Your task to perform on an android device: Open Yahoo.com Image 0: 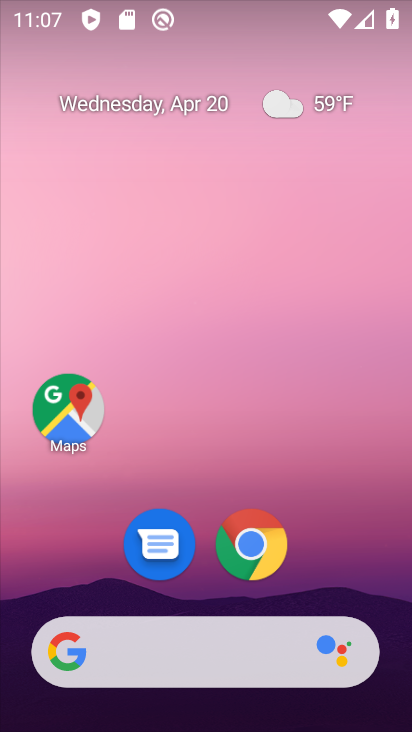
Step 0: click (305, 180)
Your task to perform on an android device: Open Yahoo.com Image 1: 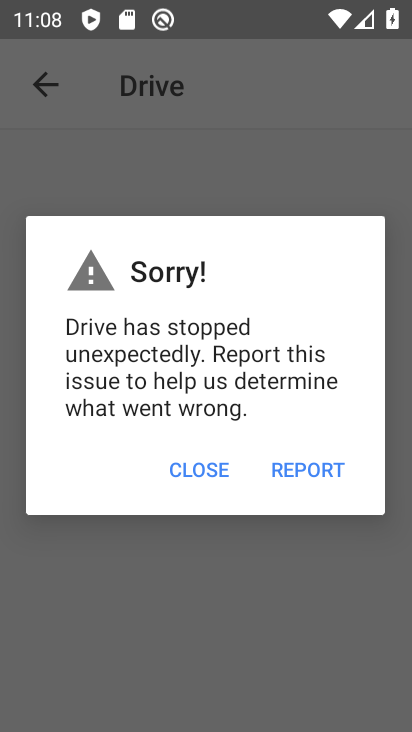
Step 1: click (181, 477)
Your task to perform on an android device: Open Yahoo.com Image 2: 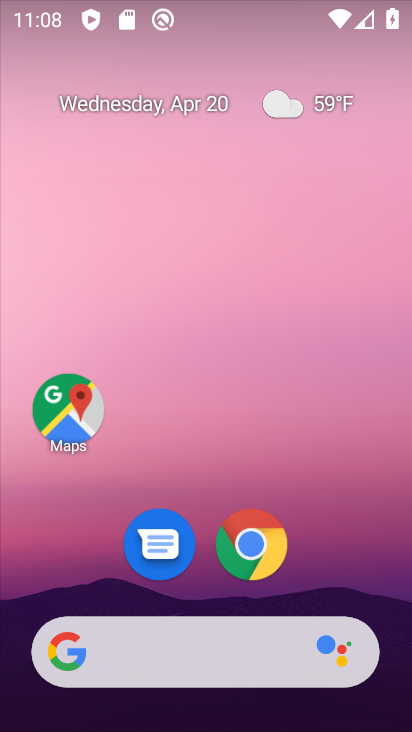
Step 2: drag from (192, 583) to (256, 110)
Your task to perform on an android device: Open Yahoo.com Image 3: 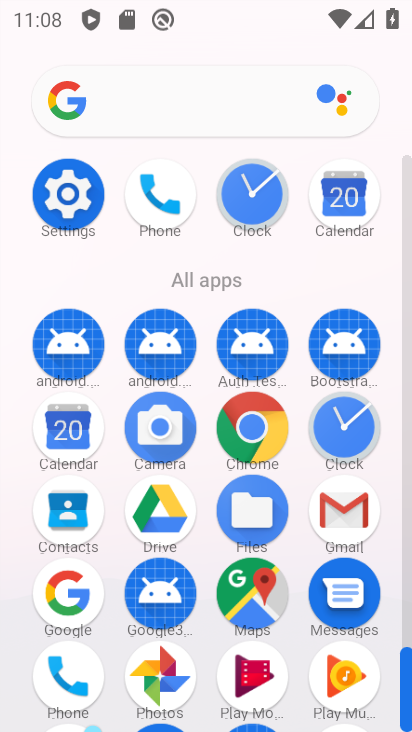
Step 3: click (242, 426)
Your task to perform on an android device: Open Yahoo.com Image 4: 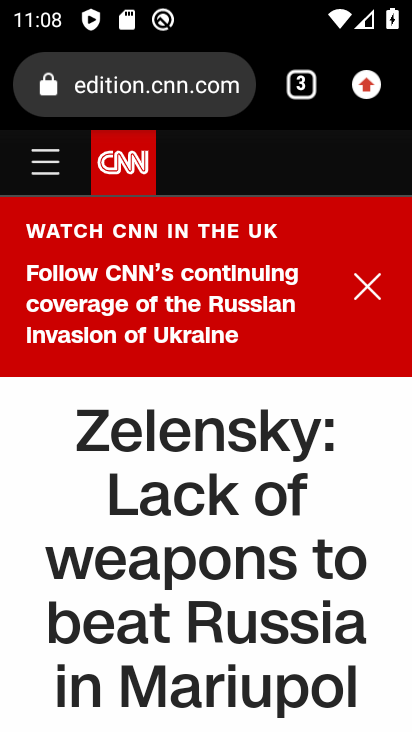
Step 4: click (313, 92)
Your task to perform on an android device: Open Yahoo.com Image 5: 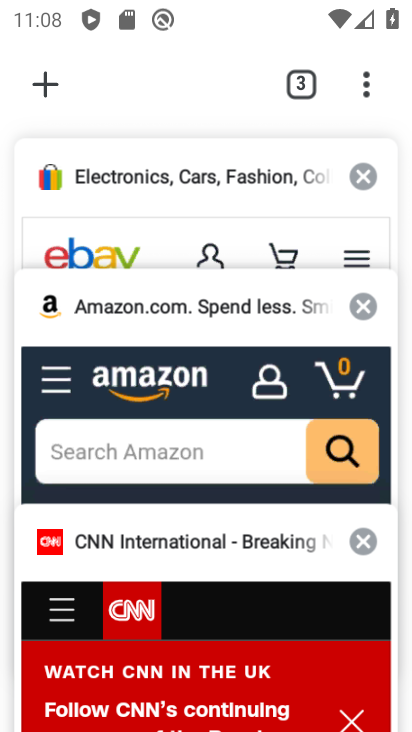
Step 5: click (49, 72)
Your task to perform on an android device: Open Yahoo.com Image 6: 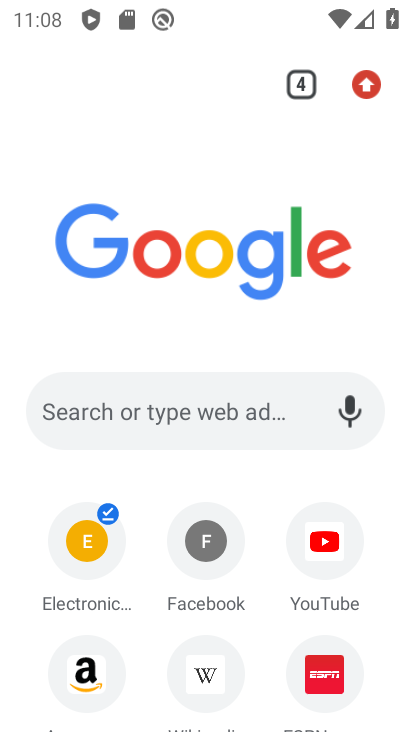
Step 6: drag from (199, 455) to (260, 141)
Your task to perform on an android device: Open Yahoo.com Image 7: 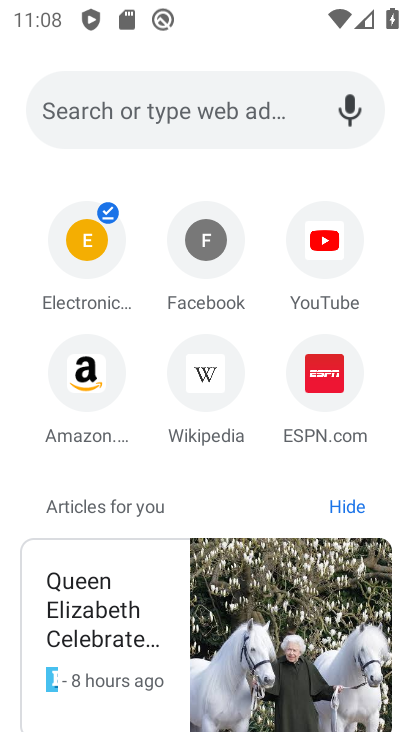
Step 7: click (229, 105)
Your task to perform on an android device: Open Yahoo.com Image 8: 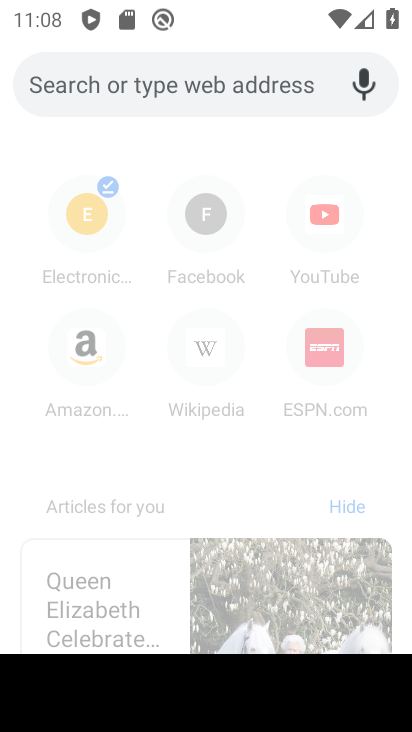
Step 8: type "yahoo"
Your task to perform on an android device: Open Yahoo.com Image 9: 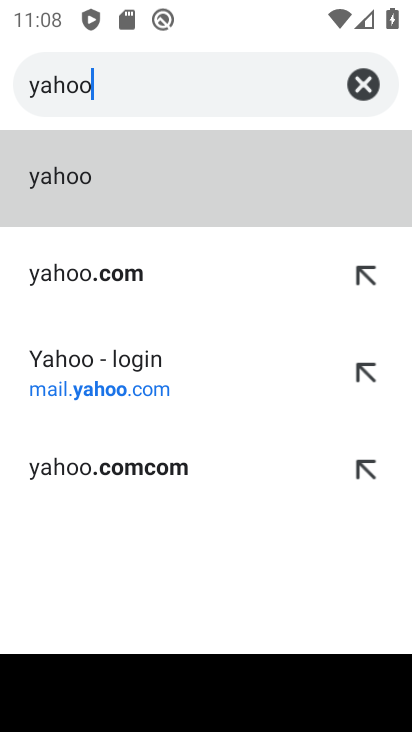
Step 9: click (69, 275)
Your task to perform on an android device: Open Yahoo.com Image 10: 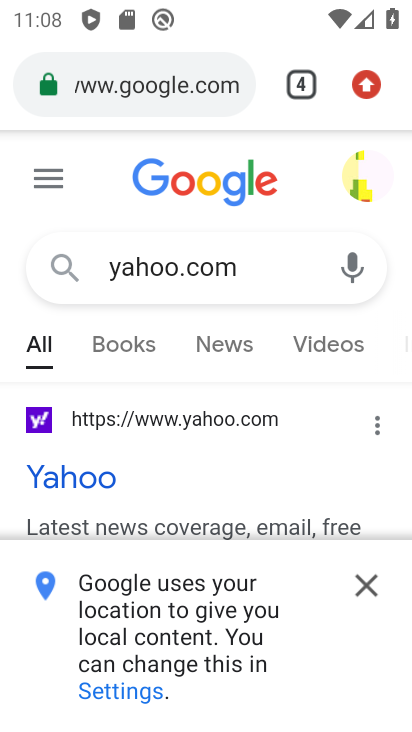
Step 10: click (73, 477)
Your task to perform on an android device: Open Yahoo.com Image 11: 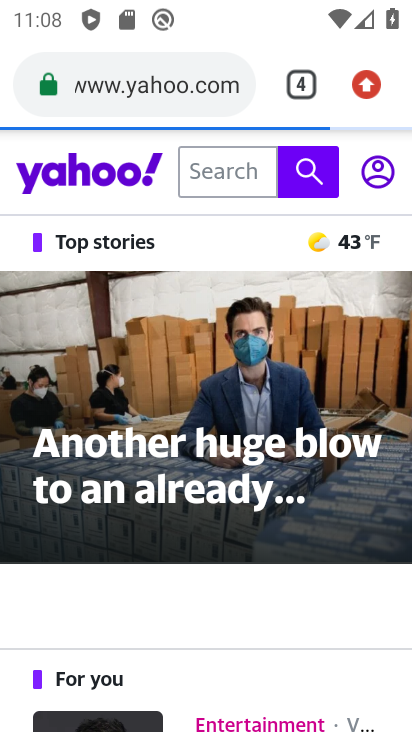
Step 11: task complete